Your task to perform on an android device: Open internet settings Image 0: 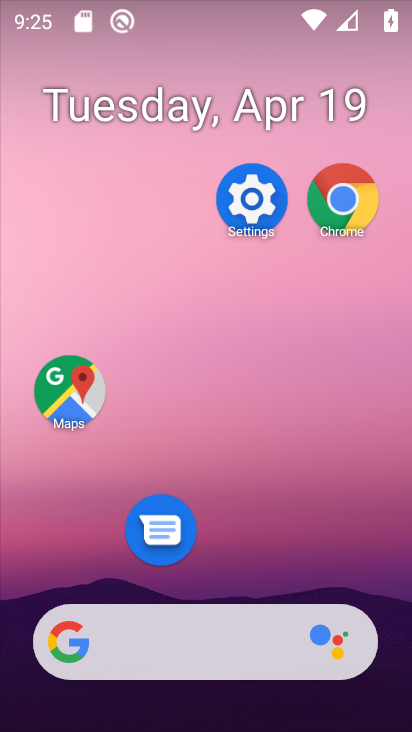
Step 0: click (212, 156)
Your task to perform on an android device: Open internet settings Image 1: 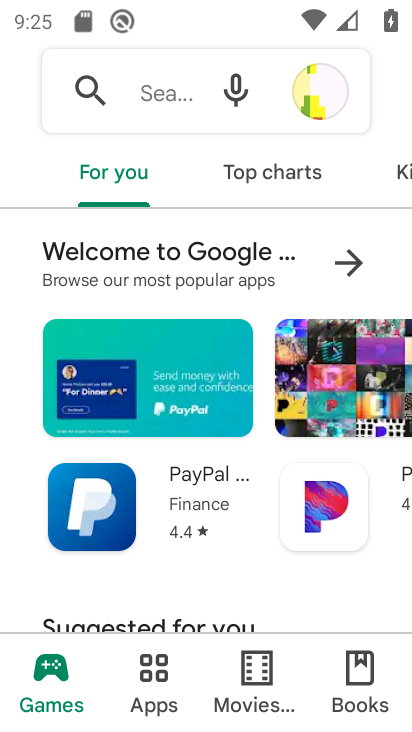
Step 1: drag from (223, 594) to (267, 251)
Your task to perform on an android device: Open internet settings Image 2: 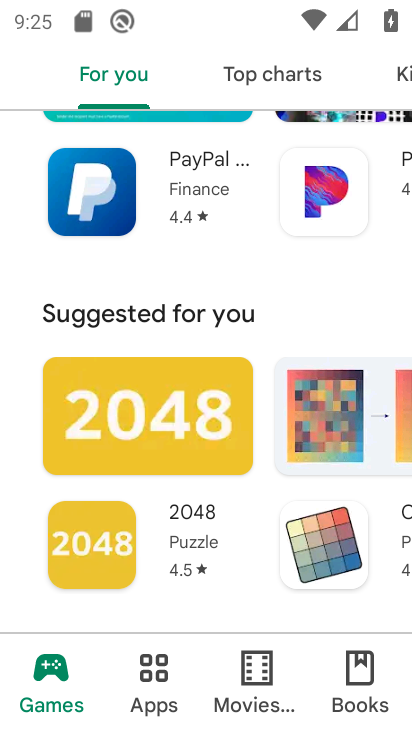
Step 2: drag from (266, 334) to (273, 618)
Your task to perform on an android device: Open internet settings Image 3: 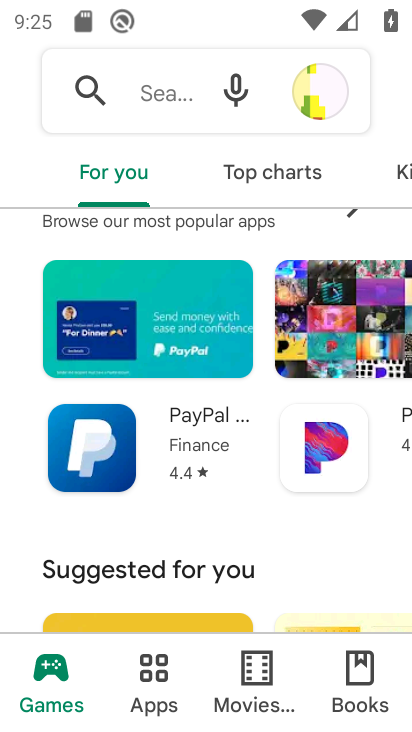
Step 3: press home button
Your task to perform on an android device: Open internet settings Image 4: 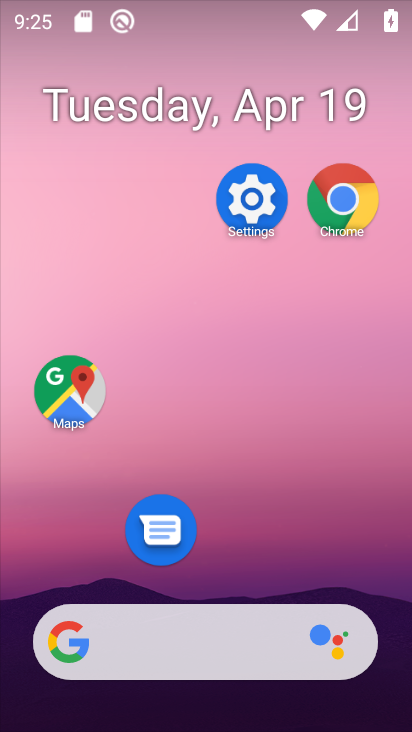
Step 4: drag from (220, 569) to (223, 87)
Your task to perform on an android device: Open internet settings Image 5: 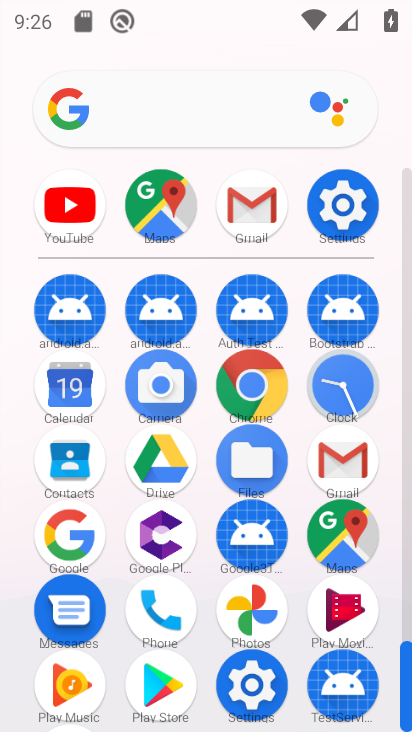
Step 5: click (248, 682)
Your task to perform on an android device: Open internet settings Image 6: 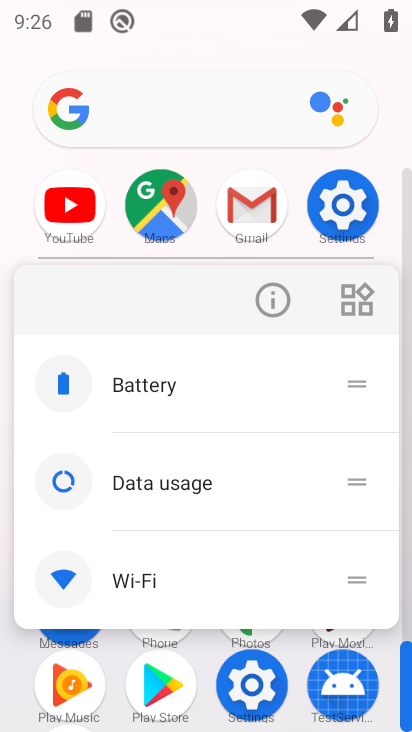
Step 6: click (276, 302)
Your task to perform on an android device: Open internet settings Image 7: 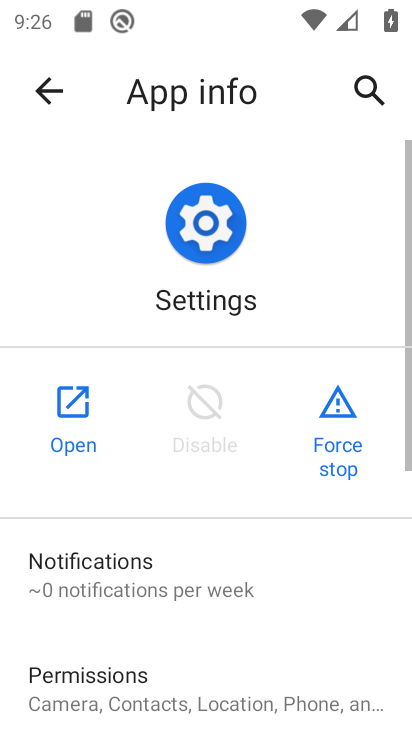
Step 7: click (72, 399)
Your task to perform on an android device: Open internet settings Image 8: 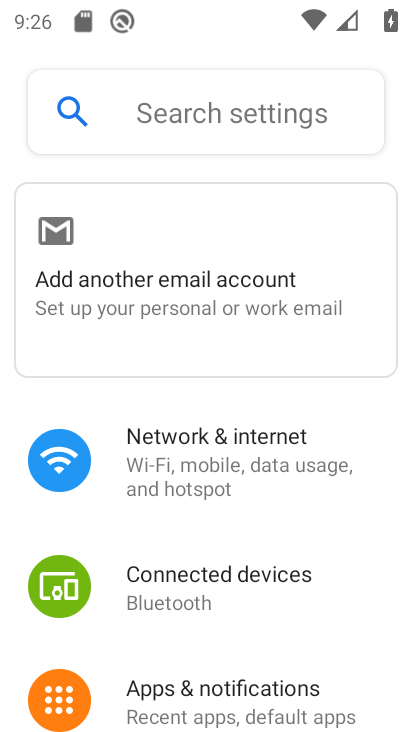
Step 8: click (213, 466)
Your task to perform on an android device: Open internet settings Image 9: 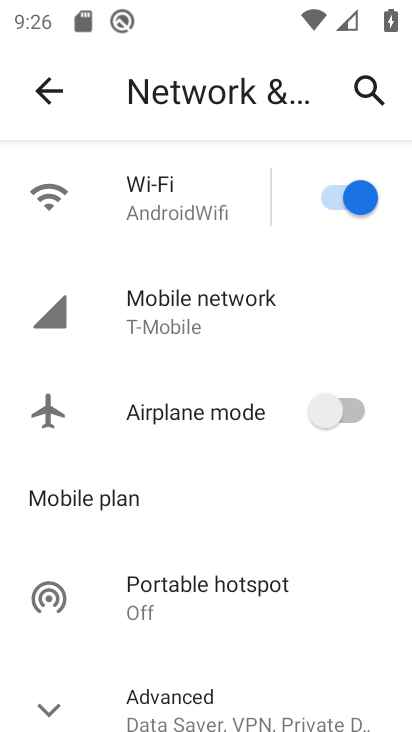
Step 9: click (219, 220)
Your task to perform on an android device: Open internet settings Image 10: 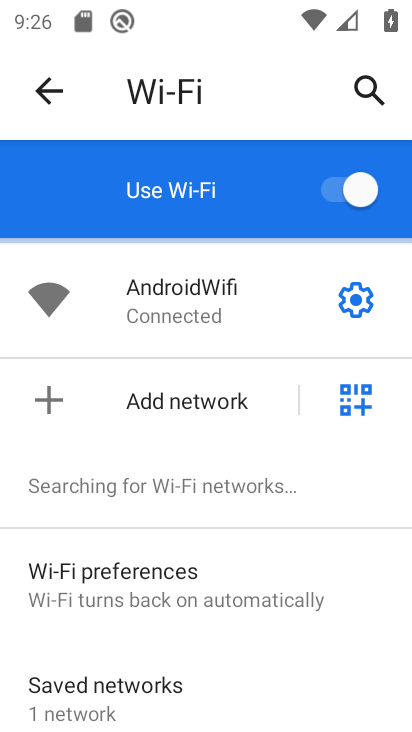
Step 10: drag from (224, 569) to (312, 264)
Your task to perform on an android device: Open internet settings Image 11: 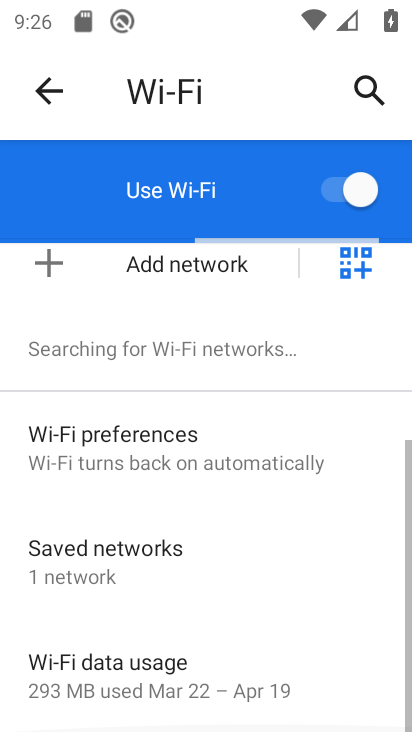
Step 11: drag from (256, 287) to (286, 682)
Your task to perform on an android device: Open internet settings Image 12: 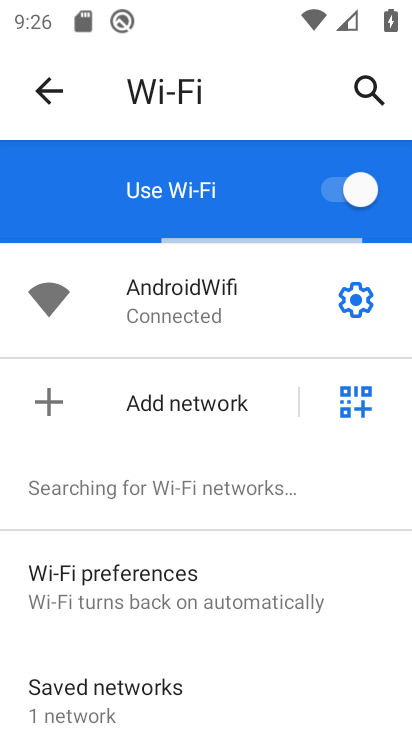
Step 12: click (357, 300)
Your task to perform on an android device: Open internet settings Image 13: 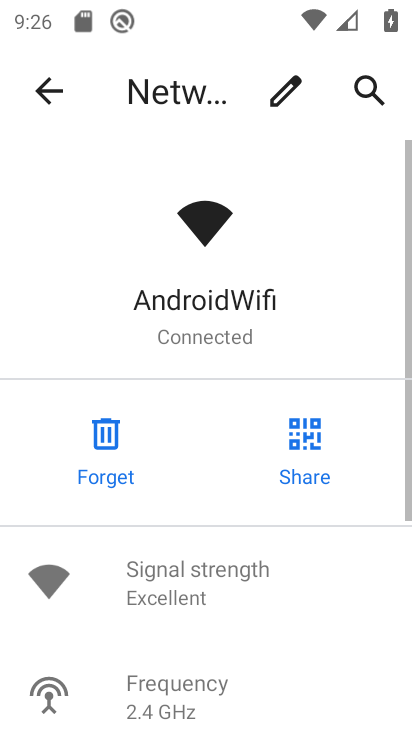
Step 13: task complete